Your task to perform on an android device: change the clock style Image 0: 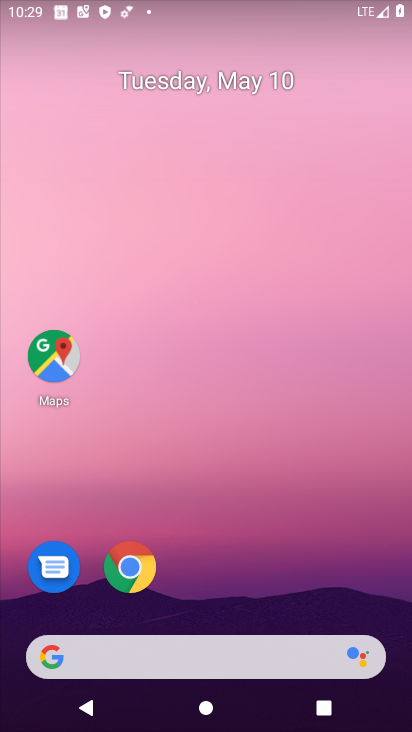
Step 0: press home button
Your task to perform on an android device: change the clock style Image 1: 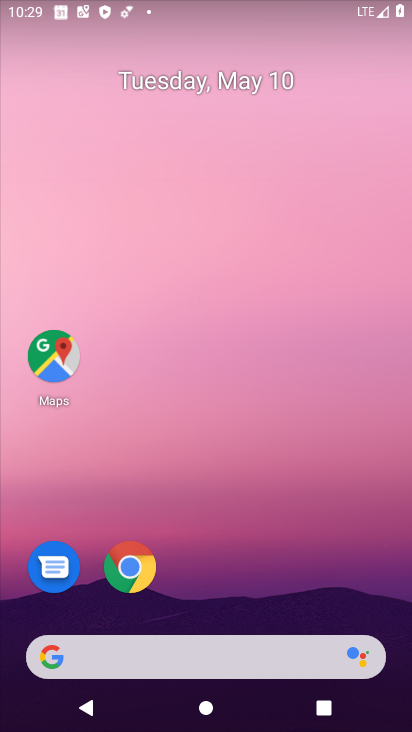
Step 1: drag from (19, 640) to (278, 176)
Your task to perform on an android device: change the clock style Image 2: 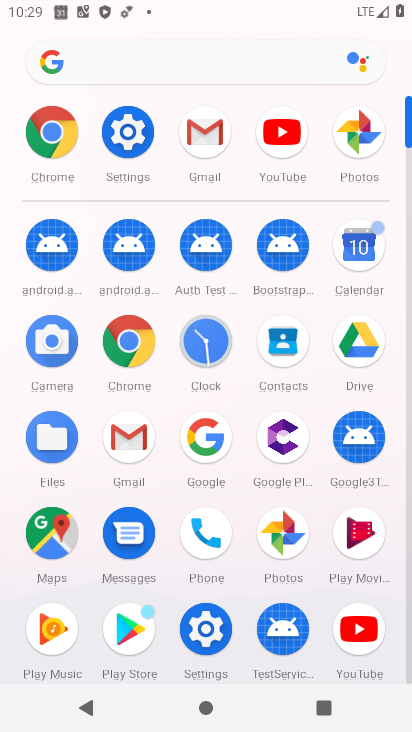
Step 2: click (216, 351)
Your task to perform on an android device: change the clock style Image 3: 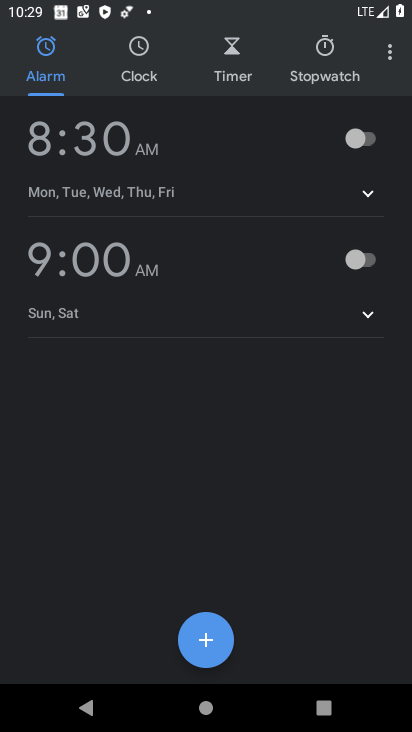
Step 3: click (392, 45)
Your task to perform on an android device: change the clock style Image 4: 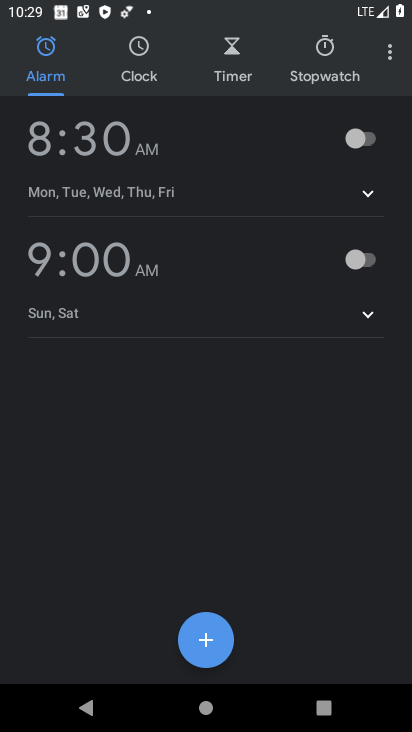
Step 4: click (385, 48)
Your task to perform on an android device: change the clock style Image 5: 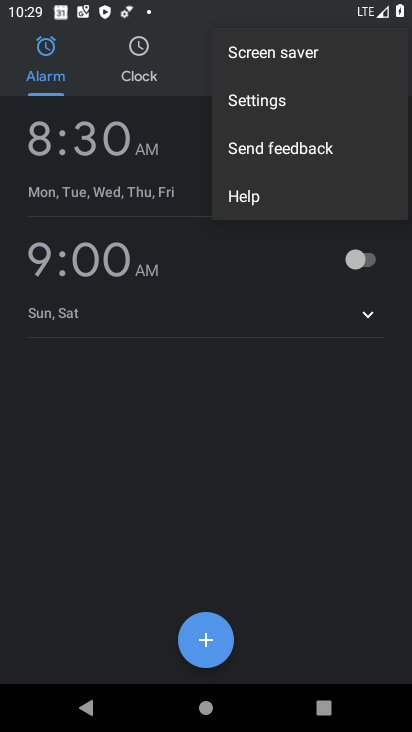
Step 5: click (267, 97)
Your task to perform on an android device: change the clock style Image 6: 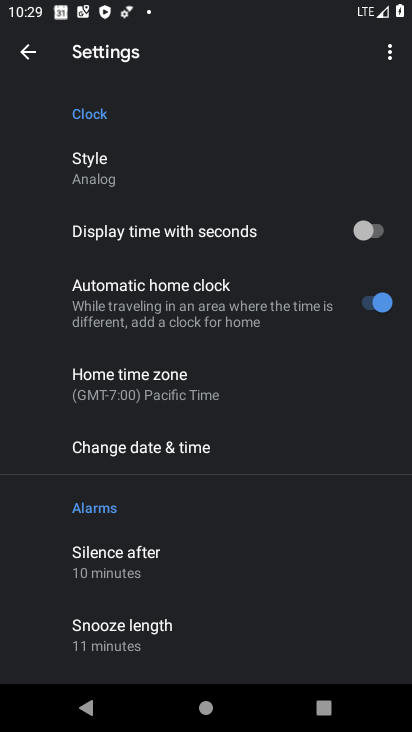
Step 6: click (73, 155)
Your task to perform on an android device: change the clock style Image 7: 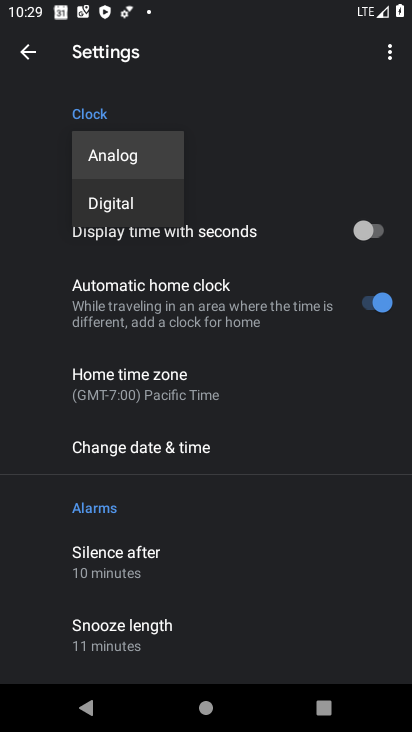
Step 7: click (88, 205)
Your task to perform on an android device: change the clock style Image 8: 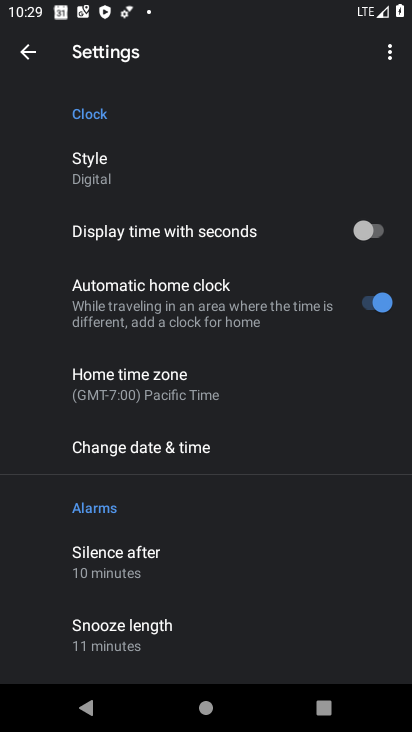
Step 8: task complete